Your task to perform on an android device: all mails in gmail Image 0: 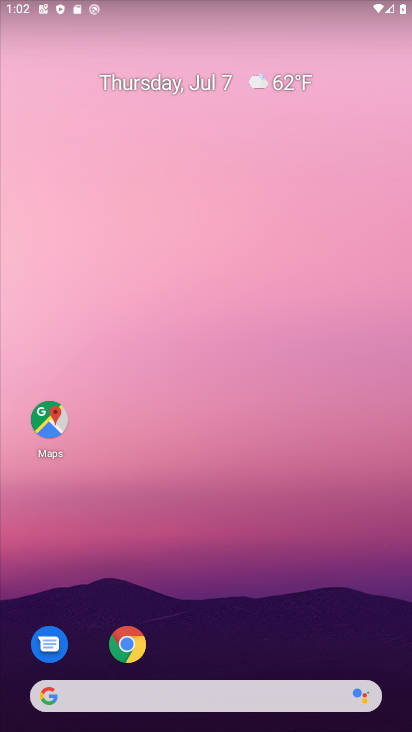
Step 0: drag from (254, 545) to (284, 111)
Your task to perform on an android device: all mails in gmail Image 1: 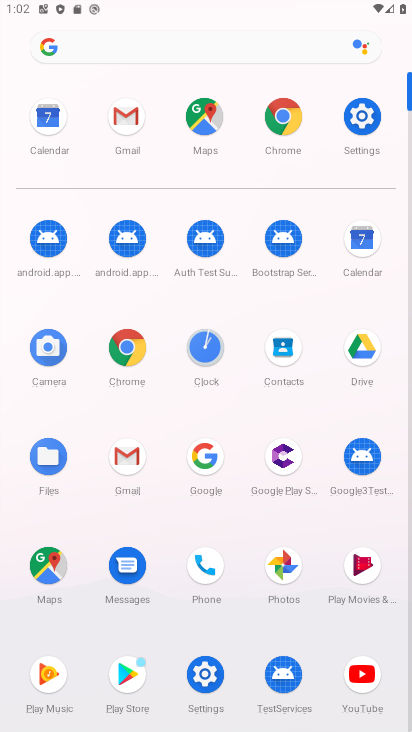
Step 1: click (112, 130)
Your task to perform on an android device: all mails in gmail Image 2: 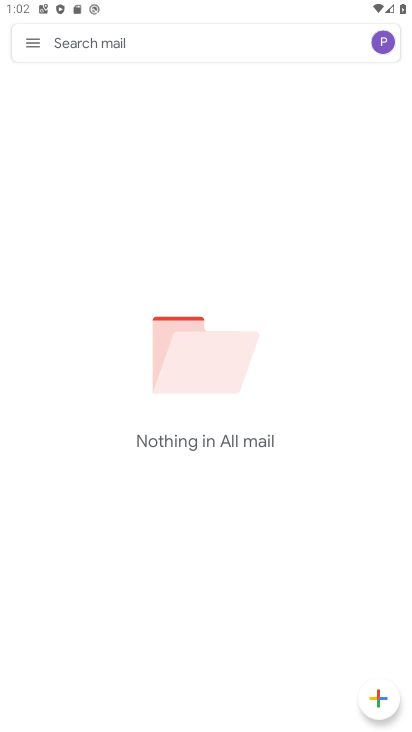
Step 2: task complete